Your task to perform on an android device: Open sound settings Image 0: 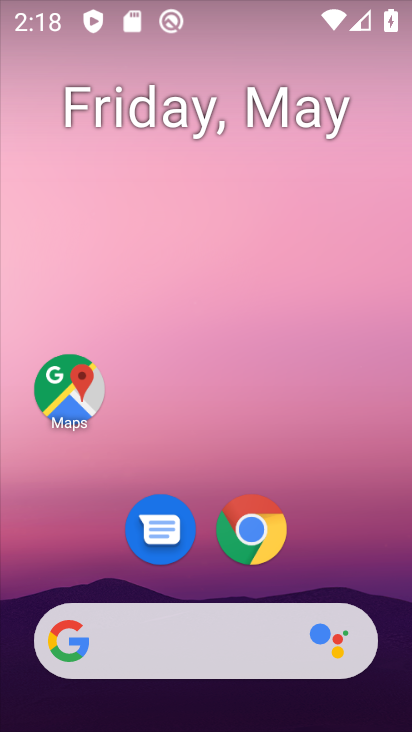
Step 0: drag from (348, 529) to (334, 107)
Your task to perform on an android device: Open sound settings Image 1: 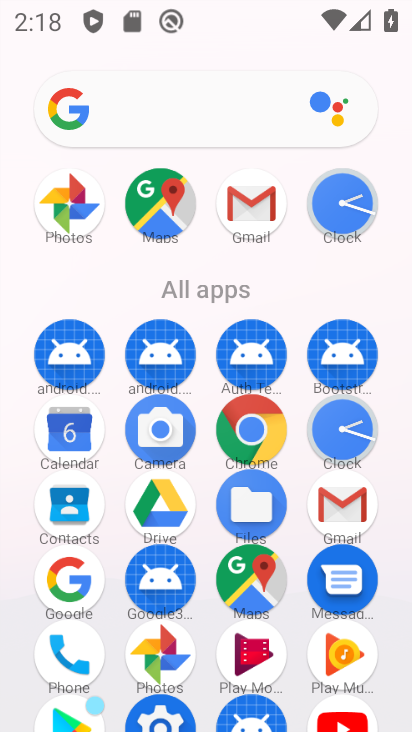
Step 1: drag from (377, 587) to (402, 247)
Your task to perform on an android device: Open sound settings Image 2: 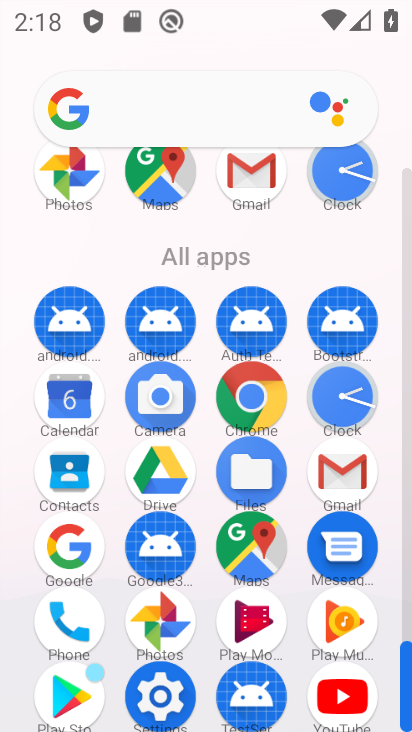
Step 2: click (177, 667)
Your task to perform on an android device: Open sound settings Image 3: 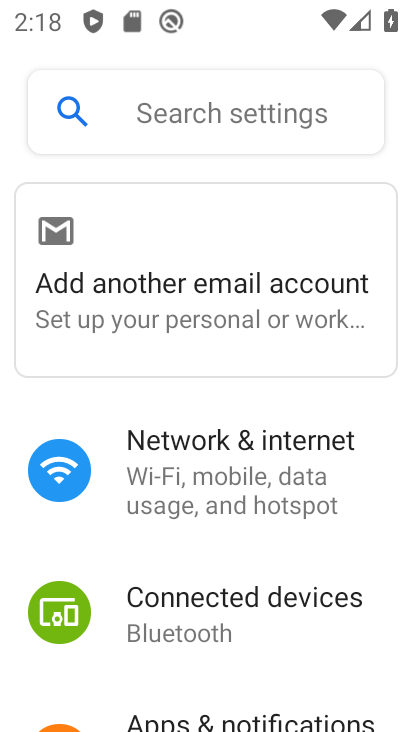
Step 3: drag from (178, 643) to (218, 223)
Your task to perform on an android device: Open sound settings Image 4: 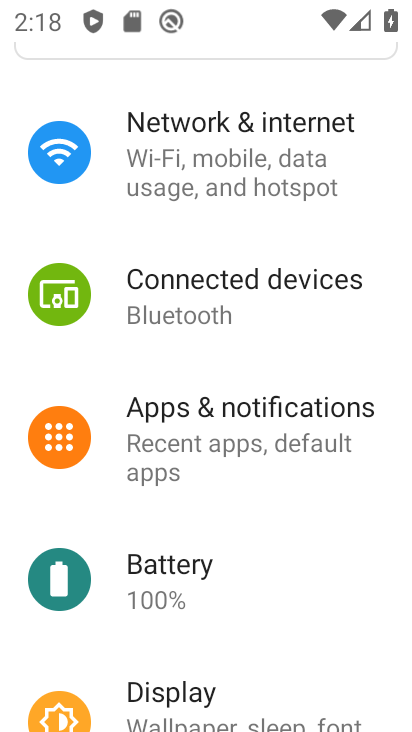
Step 4: drag from (158, 631) to (292, 91)
Your task to perform on an android device: Open sound settings Image 5: 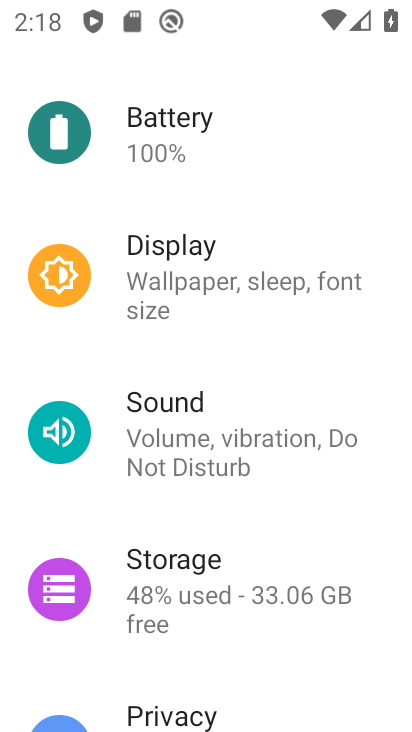
Step 5: click (181, 392)
Your task to perform on an android device: Open sound settings Image 6: 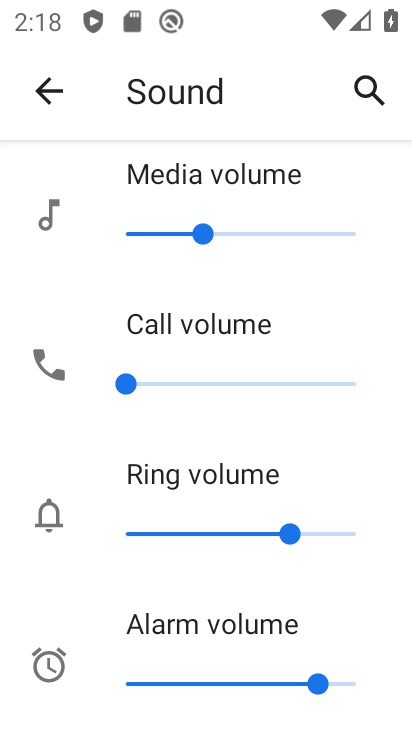
Step 6: task complete